Your task to perform on an android device: choose inbox layout in the gmail app Image 0: 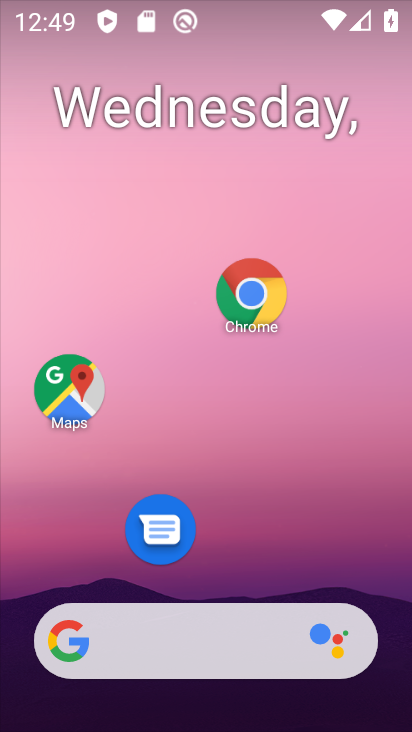
Step 0: drag from (344, 386) to (384, 7)
Your task to perform on an android device: choose inbox layout in the gmail app Image 1: 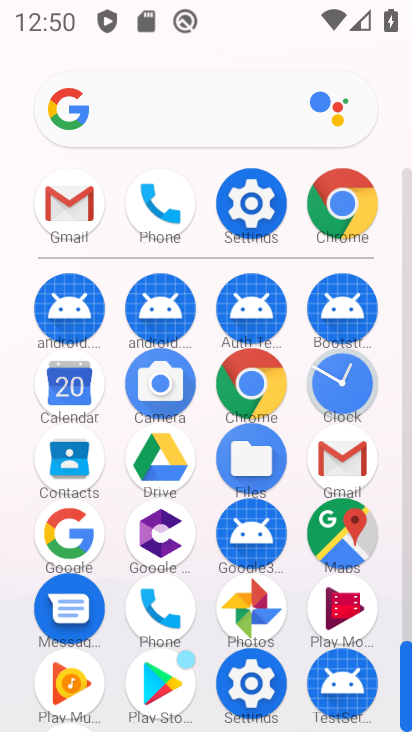
Step 1: click (357, 463)
Your task to perform on an android device: choose inbox layout in the gmail app Image 2: 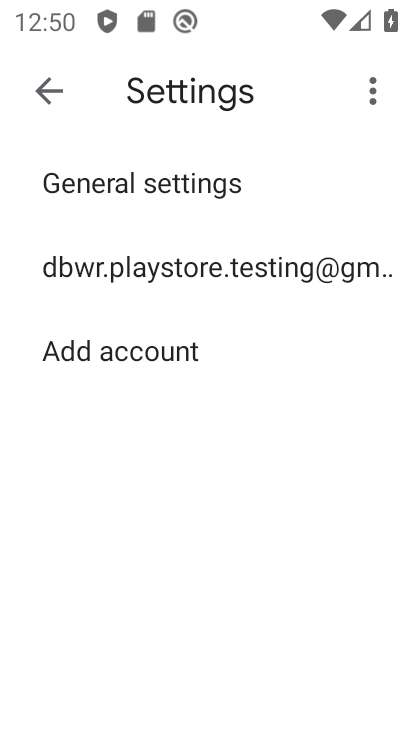
Step 2: click (188, 193)
Your task to perform on an android device: choose inbox layout in the gmail app Image 3: 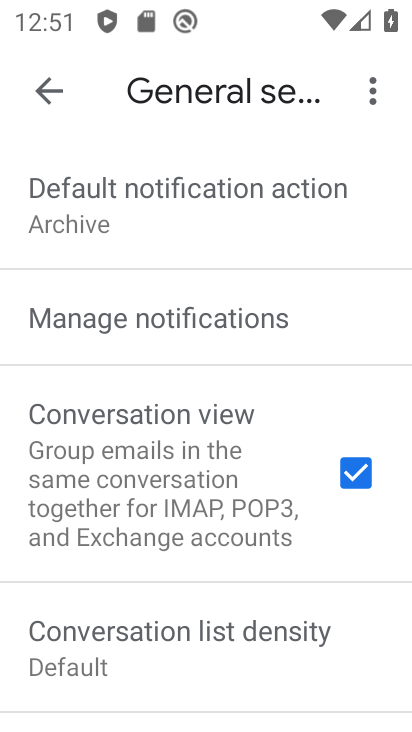
Step 3: task complete